Your task to perform on an android device: What is the news today? Image 0: 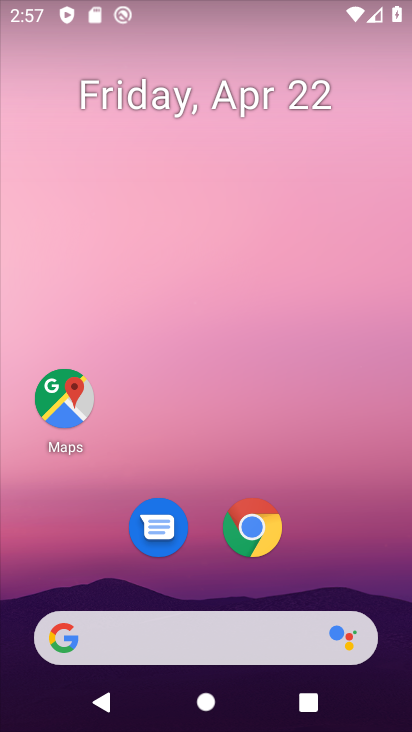
Step 0: drag from (388, 612) to (171, 17)
Your task to perform on an android device: What is the news today? Image 1: 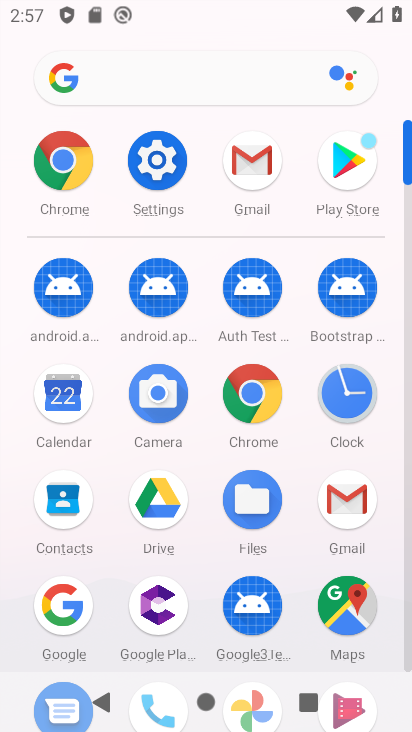
Step 1: click (262, 404)
Your task to perform on an android device: What is the news today? Image 2: 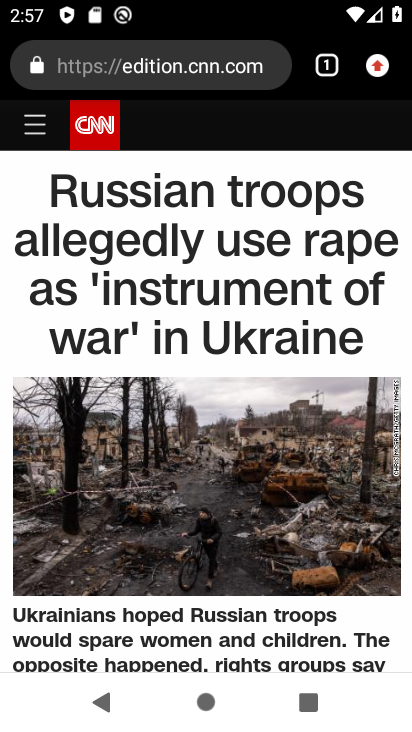
Step 2: press back button
Your task to perform on an android device: What is the news today? Image 3: 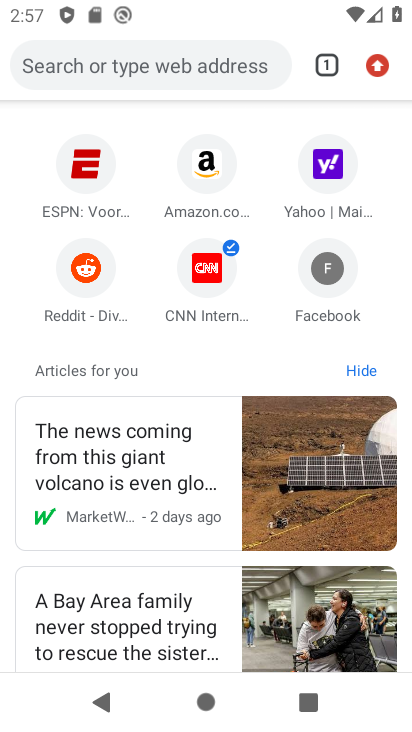
Step 3: click (160, 504)
Your task to perform on an android device: What is the news today? Image 4: 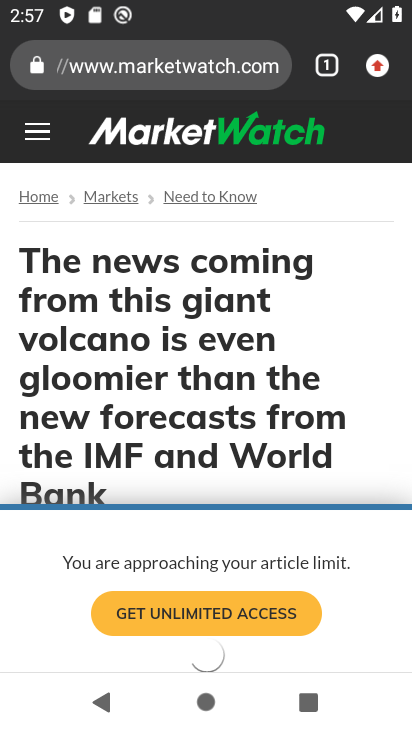
Step 4: task complete